Your task to perform on an android device: Search for Mexican restaurants on Maps Image 0: 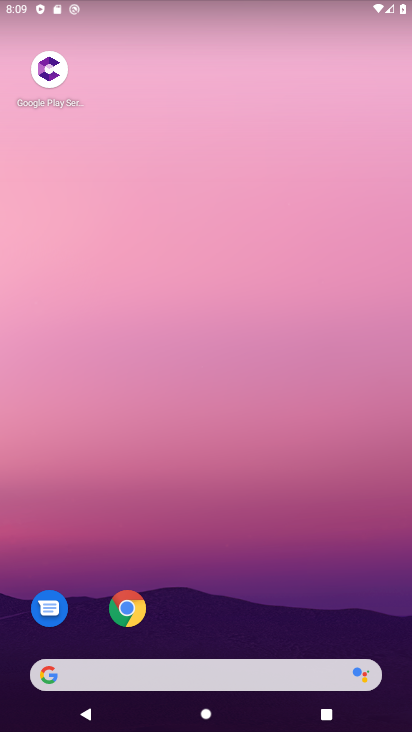
Step 0: drag from (207, 620) to (240, 194)
Your task to perform on an android device: Search for Mexican restaurants on Maps Image 1: 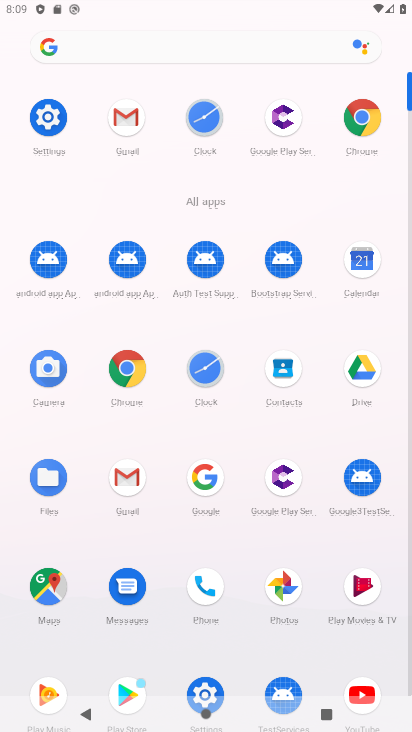
Step 1: click (57, 581)
Your task to perform on an android device: Search for Mexican restaurants on Maps Image 2: 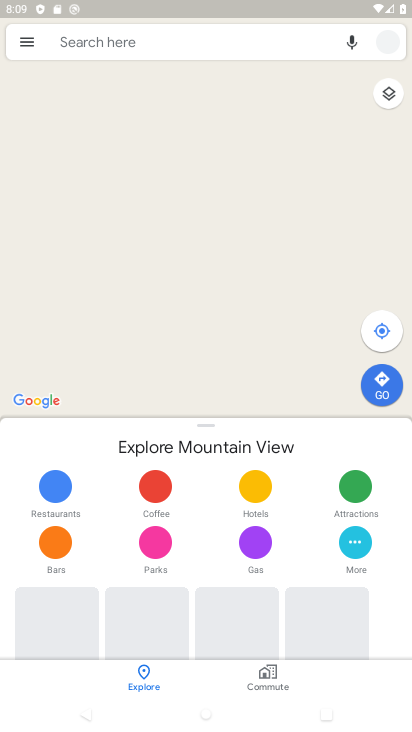
Step 2: click (191, 40)
Your task to perform on an android device: Search for Mexican restaurants on Maps Image 3: 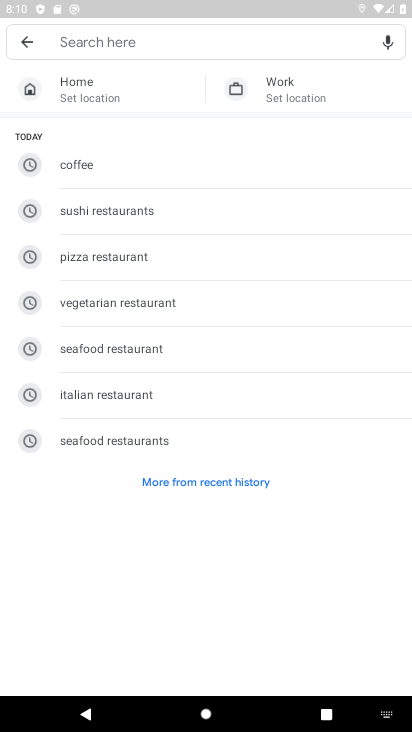
Step 3: type "mexican restaurant"
Your task to perform on an android device: Search for Mexican restaurants on Maps Image 4: 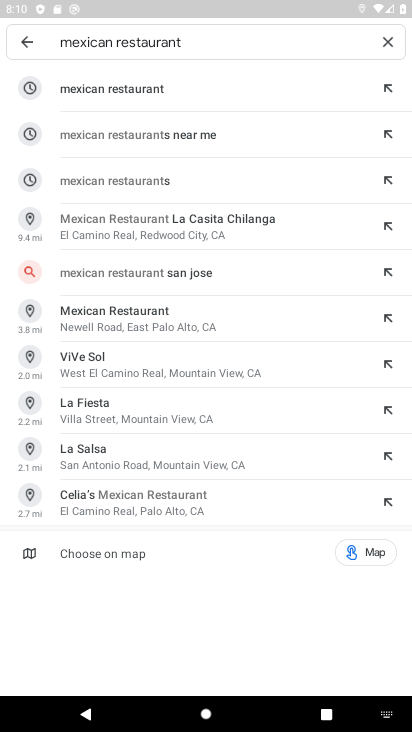
Step 4: click (129, 76)
Your task to perform on an android device: Search for Mexican restaurants on Maps Image 5: 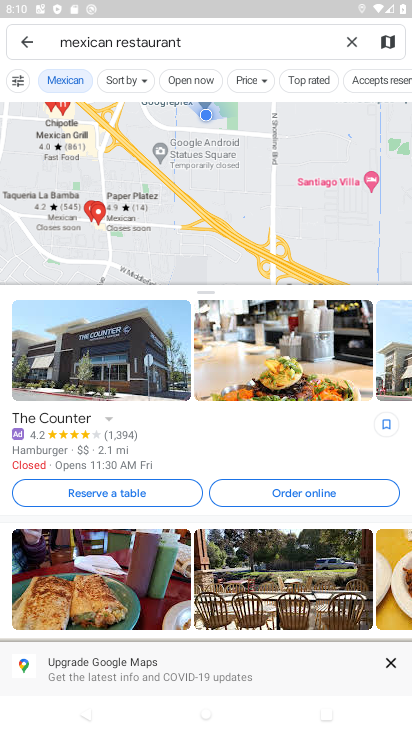
Step 5: task complete